Your task to perform on an android device: Go to privacy settings Image 0: 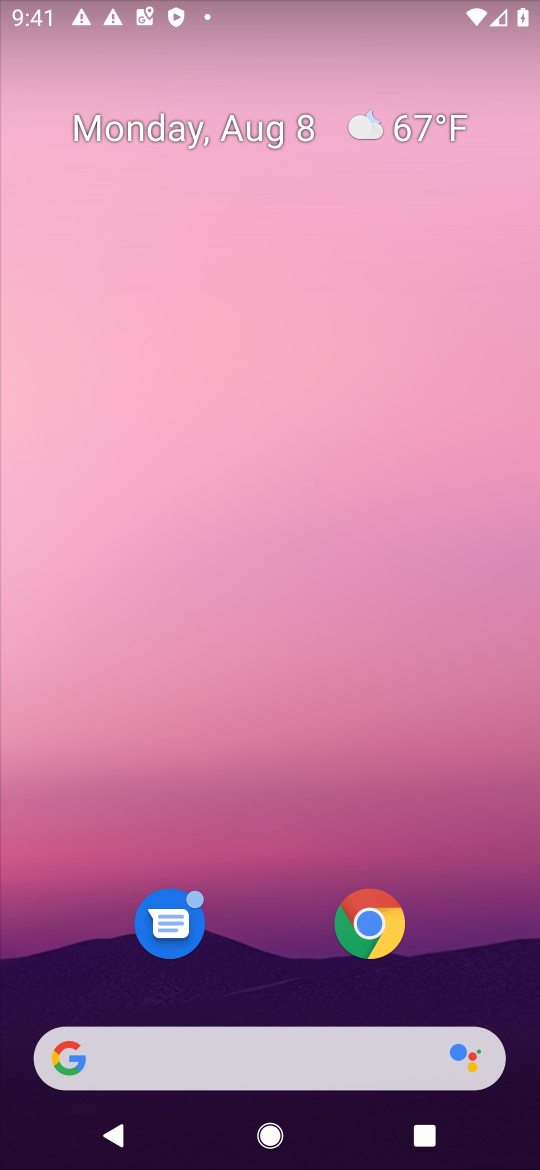
Step 0: drag from (78, 1041) to (282, 217)
Your task to perform on an android device: Go to privacy settings Image 1: 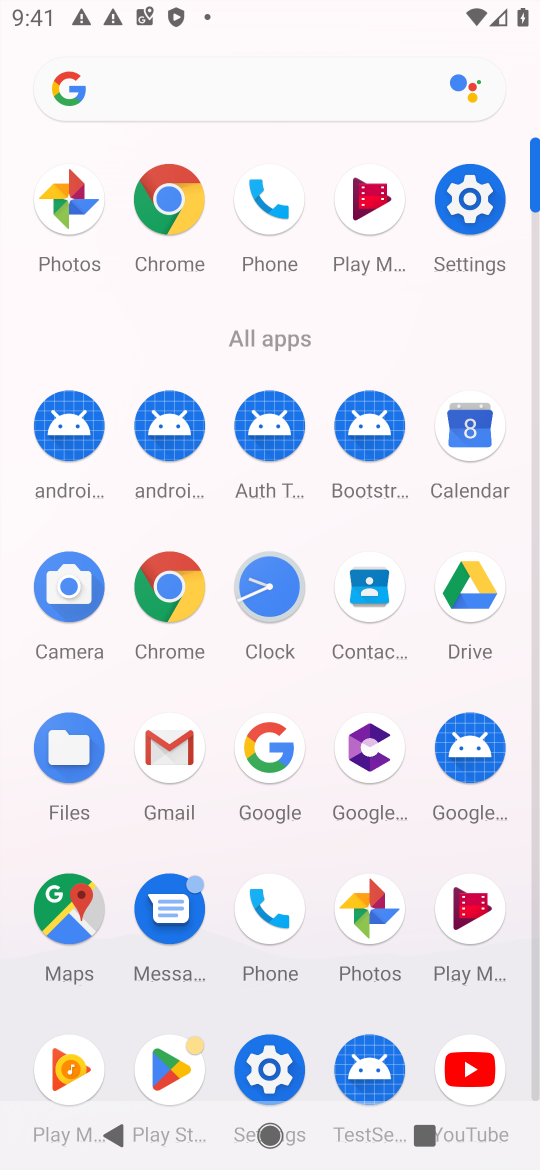
Step 1: click (269, 1058)
Your task to perform on an android device: Go to privacy settings Image 2: 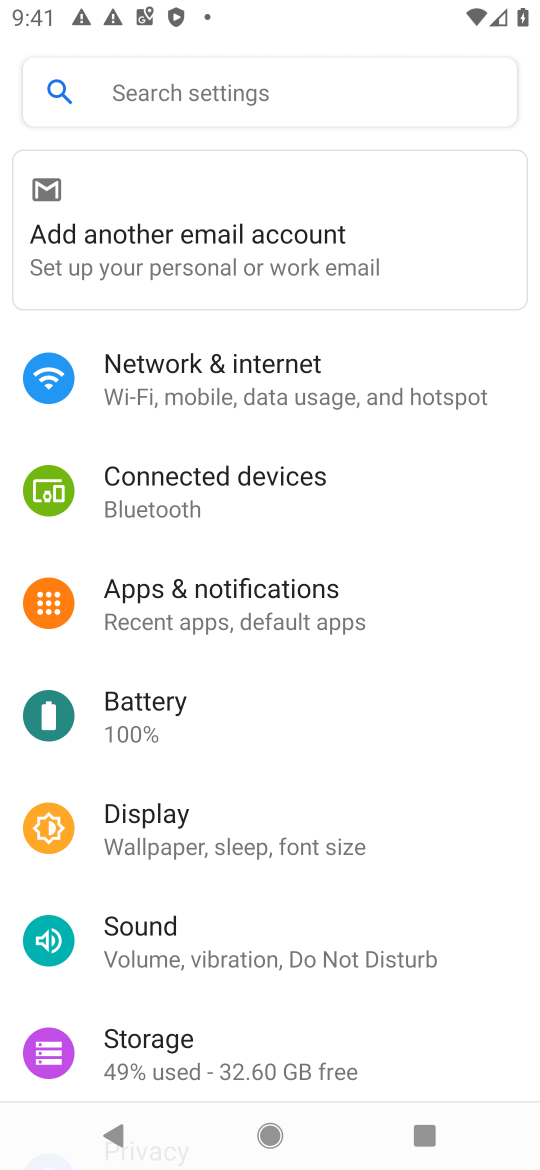
Step 2: drag from (487, 1055) to (523, 674)
Your task to perform on an android device: Go to privacy settings Image 3: 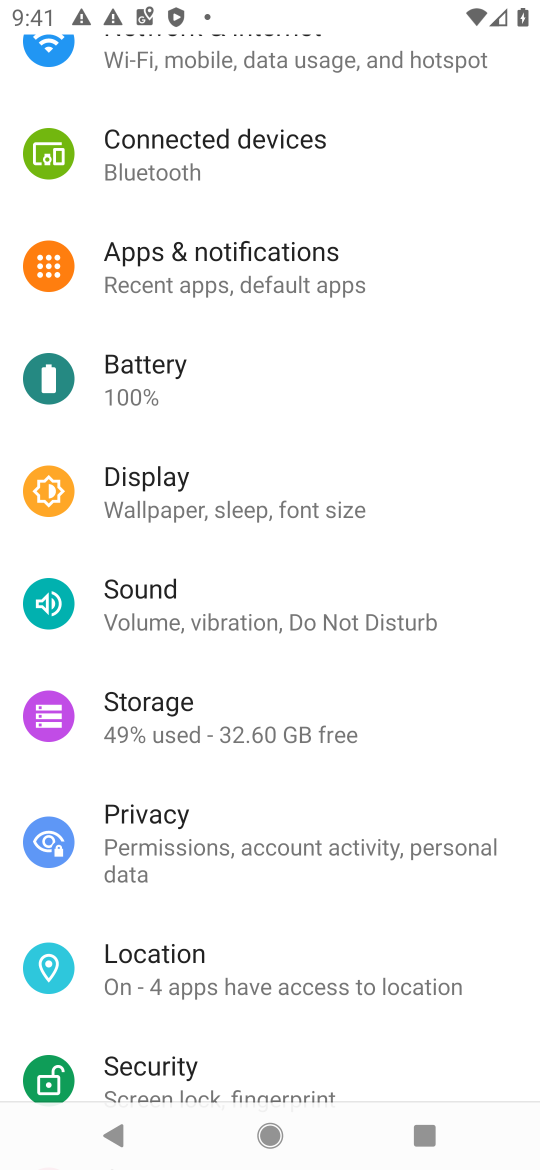
Step 3: click (215, 829)
Your task to perform on an android device: Go to privacy settings Image 4: 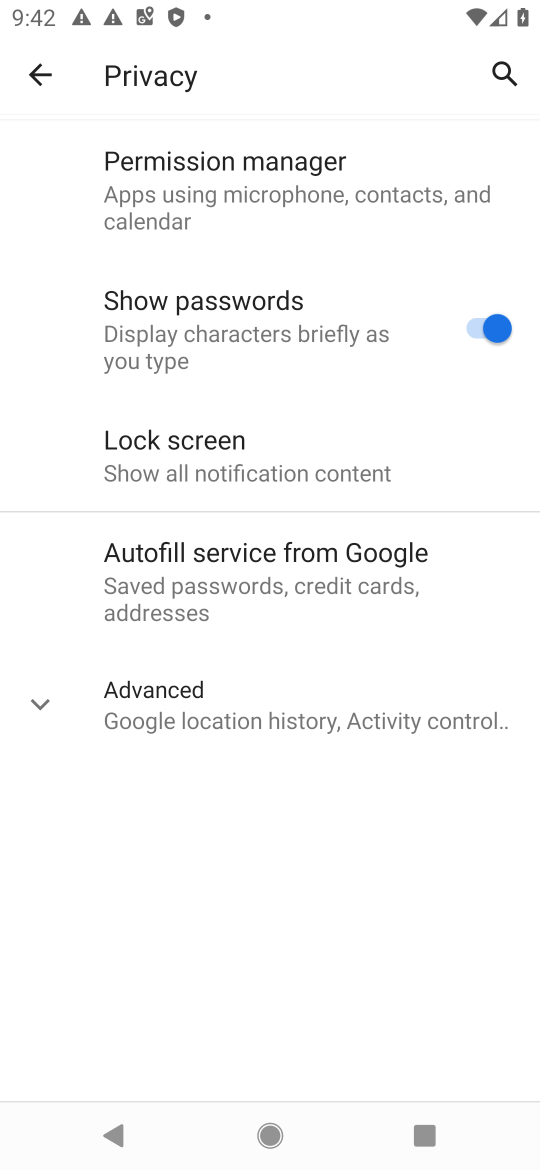
Step 4: task complete